Your task to perform on an android device: toggle priority inbox in the gmail app Image 0: 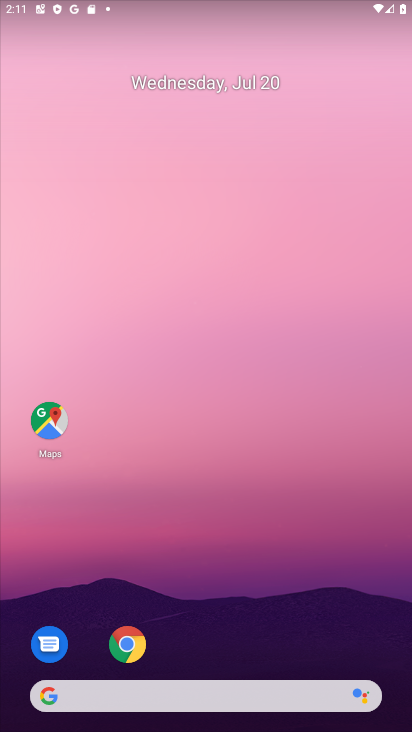
Step 0: drag from (226, 693) to (259, 255)
Your task to perform on an android device: toggle priority inbox in the gmail app Image 1: 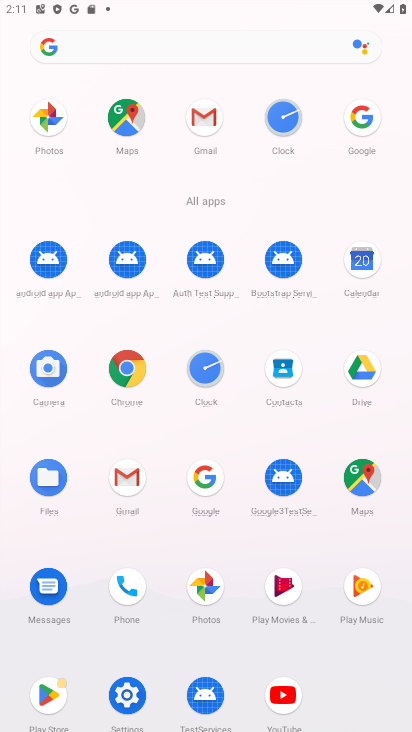
Step 1: click (207, 115)
Your task to perform on an android device: toggle priority inbox in the gmail app Image 2: 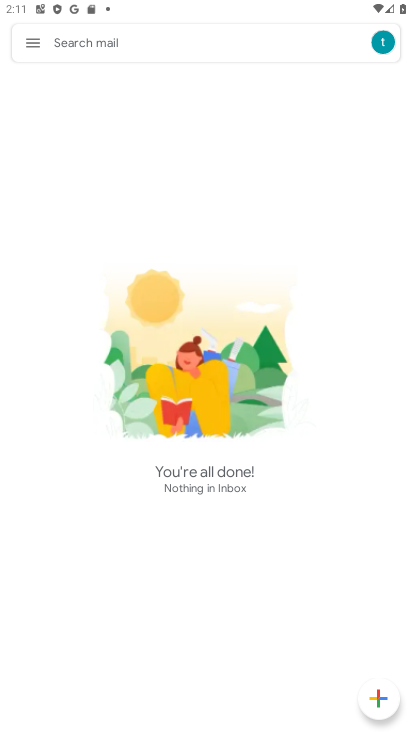
Step 2: click (34, 40)
Your task to perform on an android device: toggle priority inbox in the gmail app Image 3: 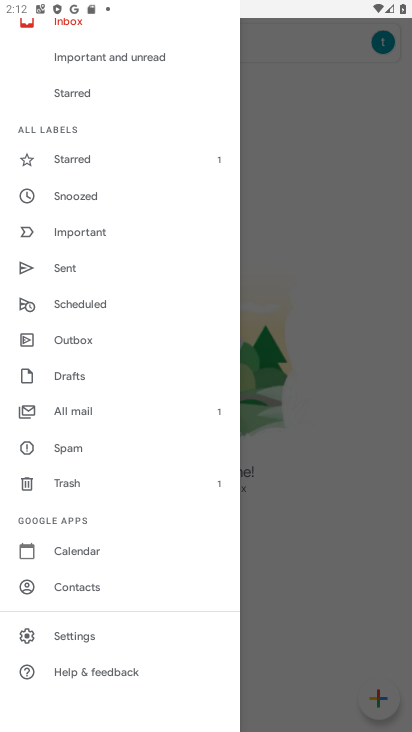
Step 3: click (83, 636)
Your task to perform on an android device: toggle priority inbox in the gmail app Image 4: 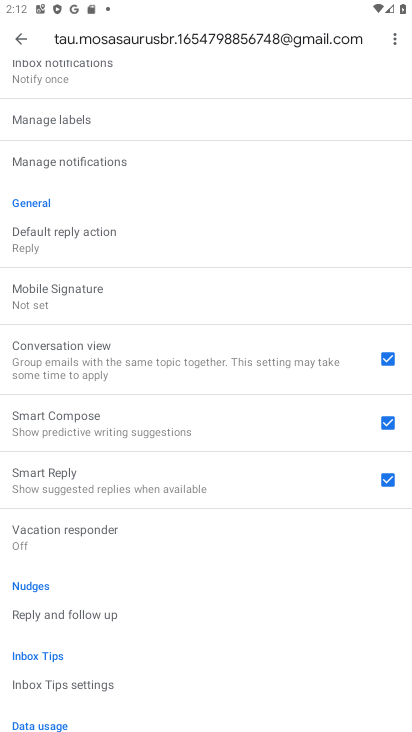
Step 4: drag from (123, 123) to (105, 613)
Your task to perform on an android device: toggle priority inbox in the gmail app Image 5: 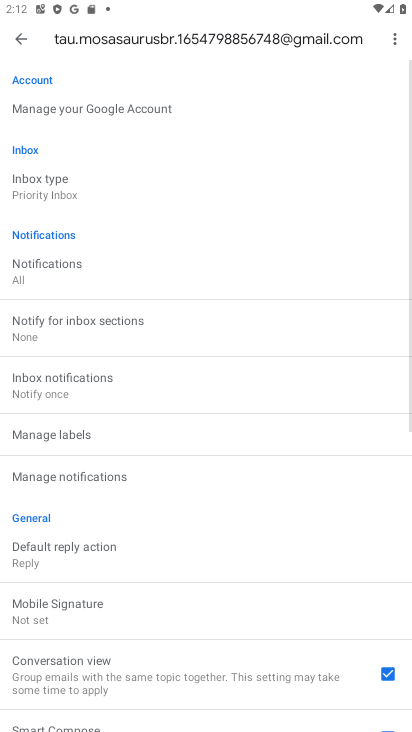
Step 5: click (62, 186)
Your task to perform on an android device: toggle priority inbox in the gmail app Image 6: 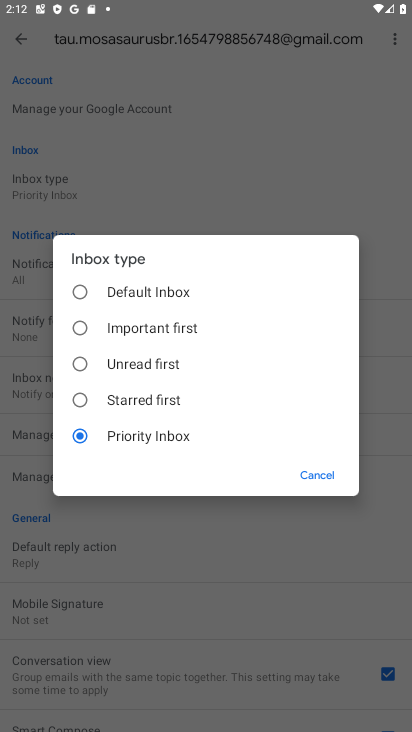
Step 6: click (82, 294)
Your task to perform on an android device: toggle priority inbox in the gmail app Image 7: 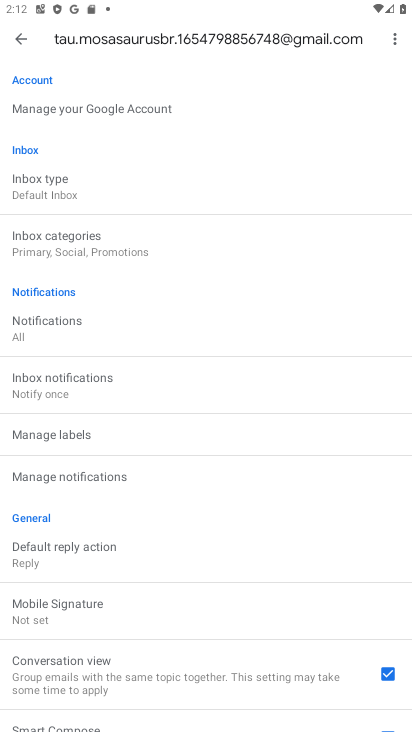
Step 7: task complete